Your task to perform on an android device: Show me recent news Image 0: 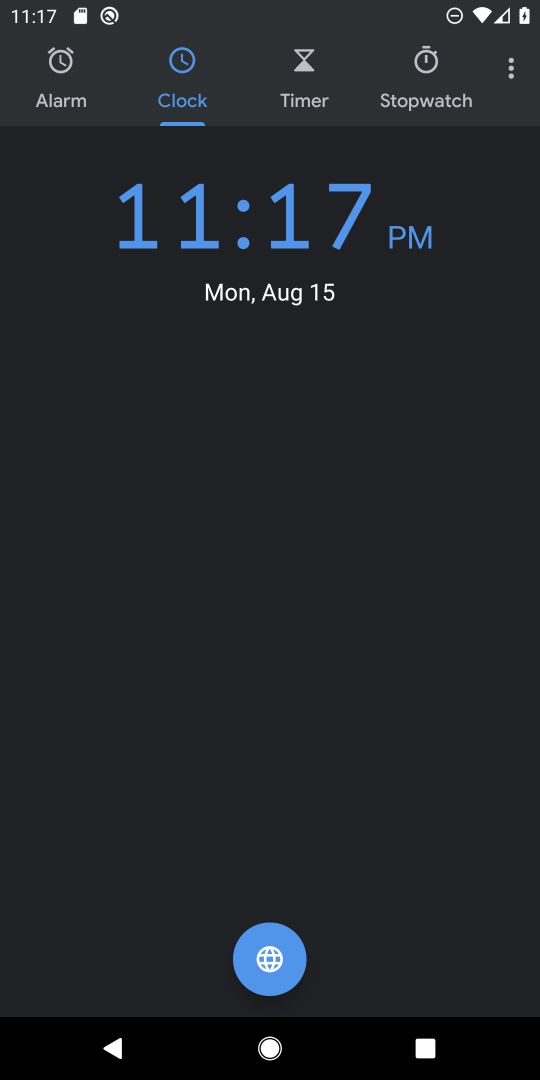
Step 0: press back button
Your task to perform on an android device: Show me recent news Image 1: 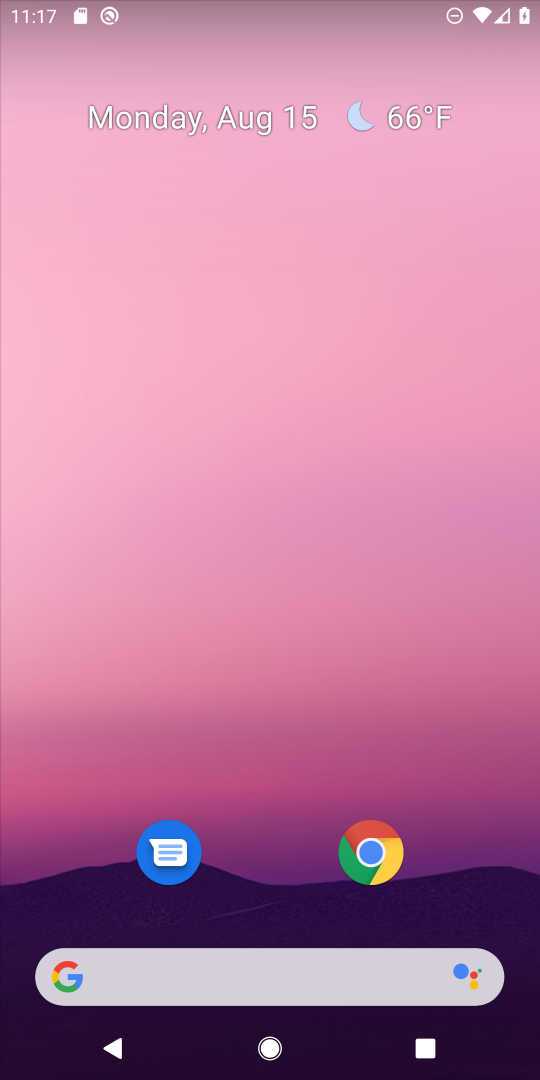
Step 1: click (200, 978)
Your task to perform on an android device: Show me recent news Image 2: 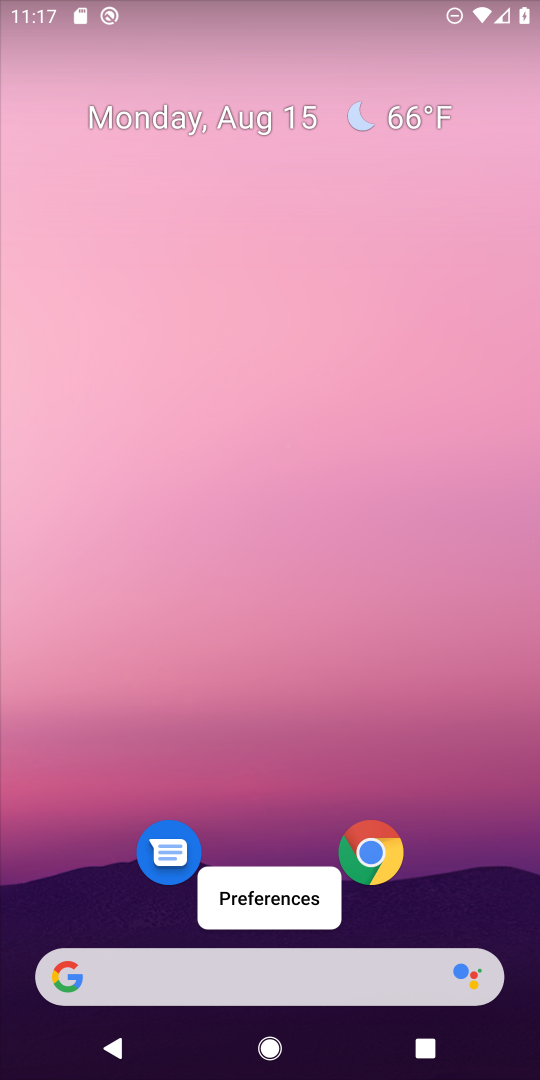
Step 2: click (202, 985)
Your task to perform on an android device: Show me recent news Image 3: 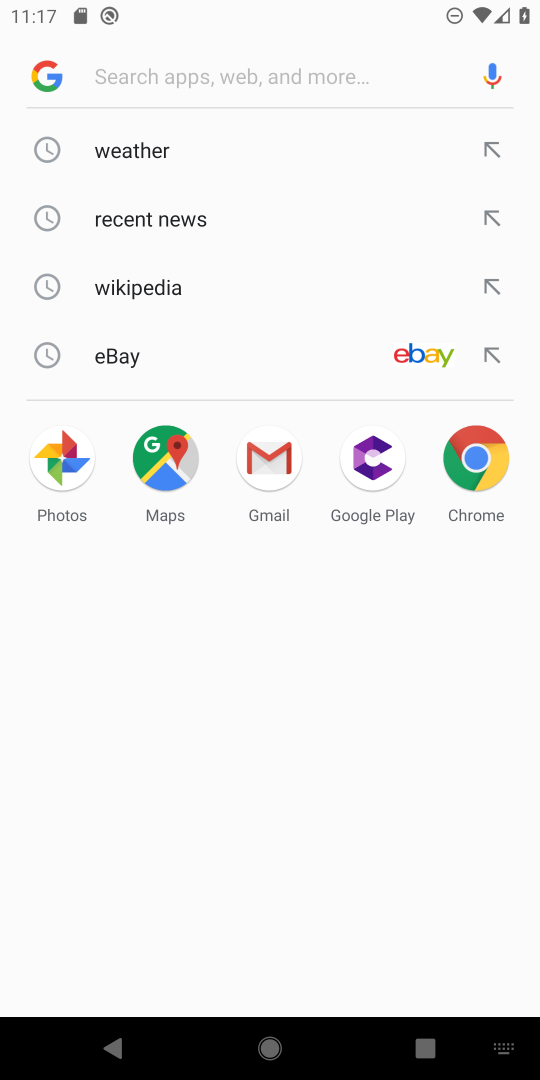
Step 3: click (152, 204)
Your task to perform on an android device: Show me recent news Image 4: 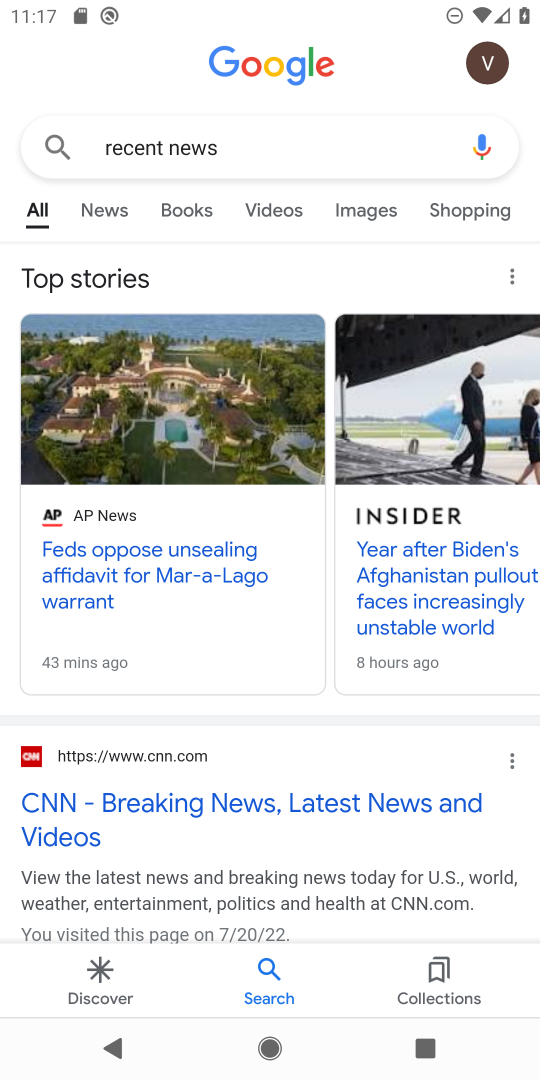
Step 4: task complete